Your task to perform on an android device: Go to Reddit.com Image 0: 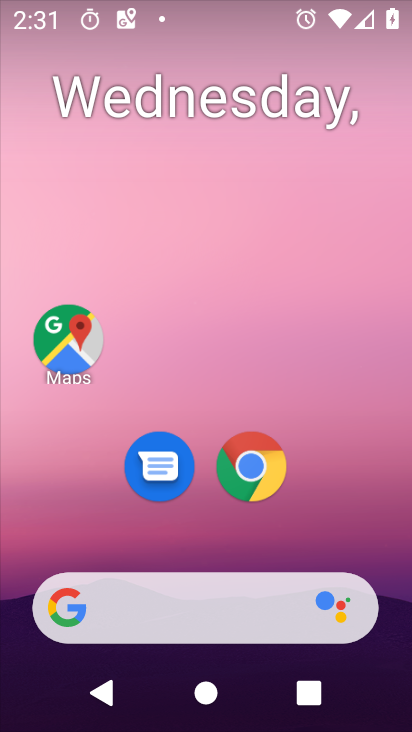
Step 0: click (263, 471)
Your task to perform on an android device: Go to Reddit.com Image 1: 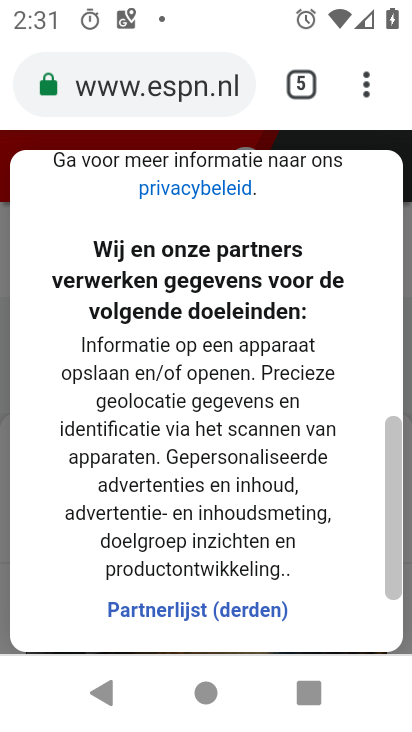
Step 1: click (296, 88)
Your task to perform on an android device: Go to Reddit.com Image 2: 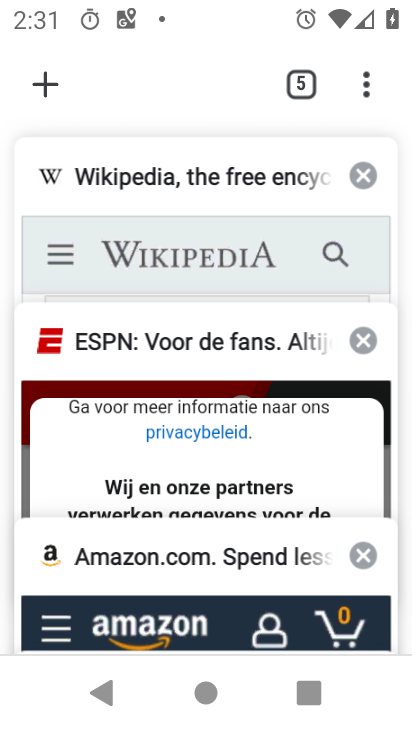
Step 2: drag from (201, 198) to (189, 494)
Your task to perform on an android device: Go to Reddit.com Image 3: 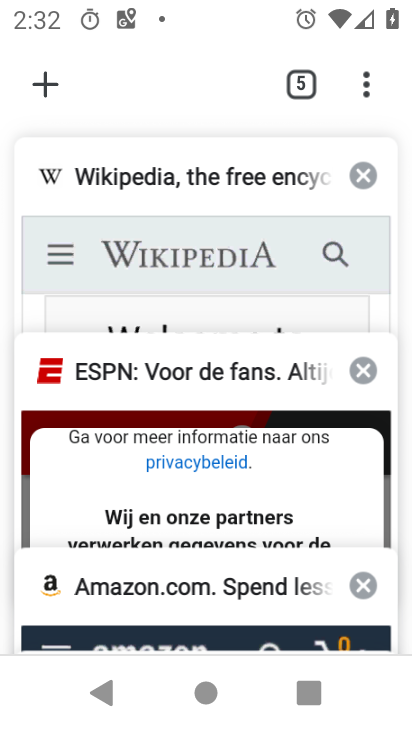
Step 3: click (49, 78)
Your task to perform on an android device: Go to Reddit.com Image 4: 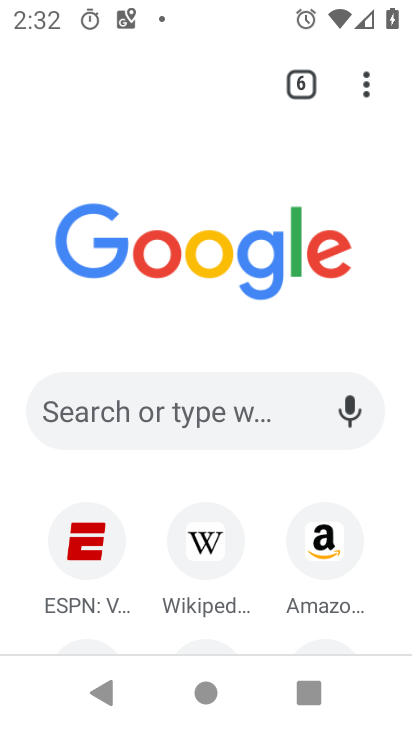
Step 4: click (186, 395)
Your task to perform on an android device: Go to Reddit.com Image 5: 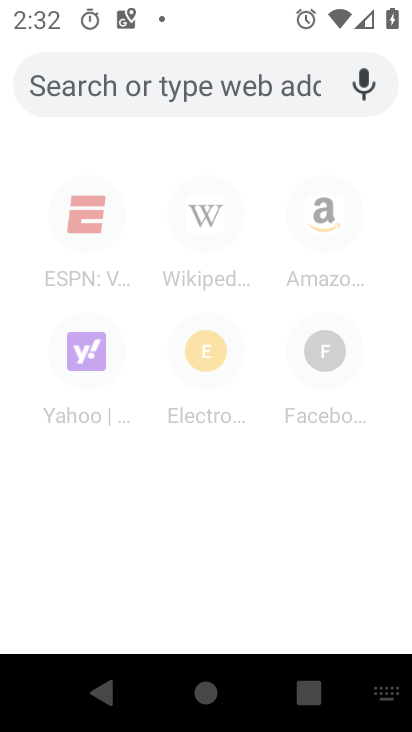
Step 5: type "Reddit.com"
Your task to perform on an android device: Go to Reddit.com Image 6: 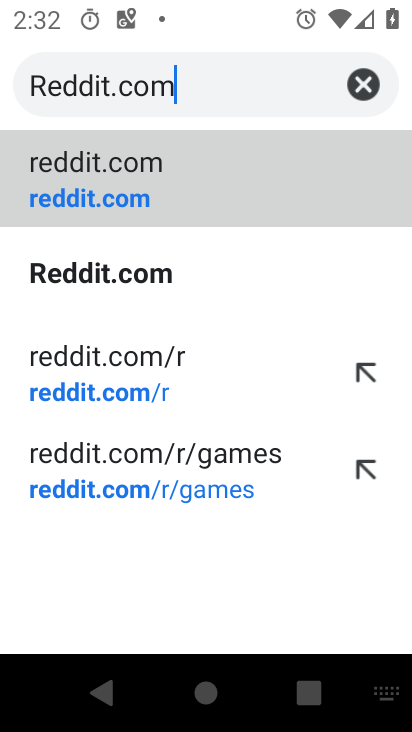
Step 6: click (112, 195)
Your task to perform on an android device: Go to Reddit.com Image 7: 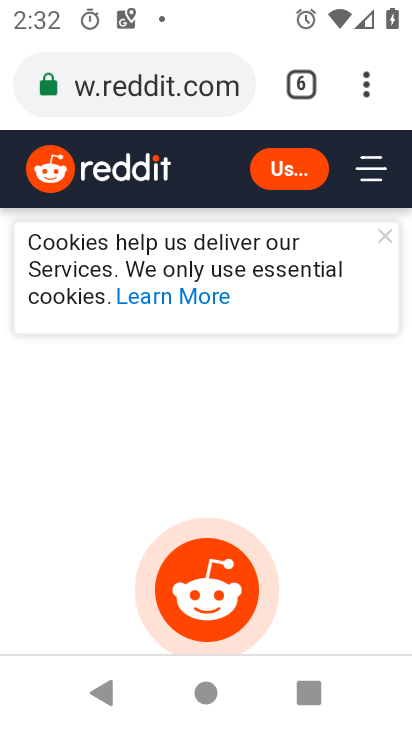
Step 7: task complete